Your task to perform on an android device: Show me recent news Image 0: 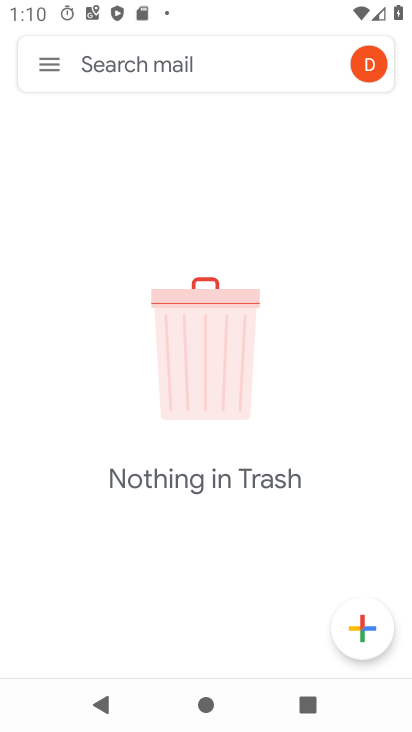
Step 0: press home button
Your task to perform on an android device: Show me recent news Image 1: 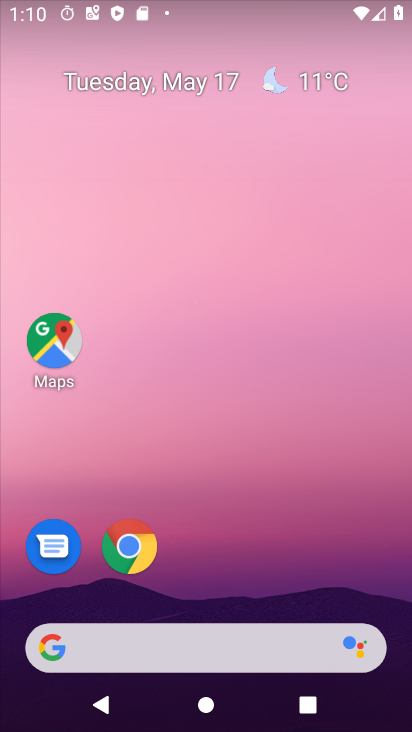
Step 1: click (55, 650)
Your task to perform on an android device: Show me recent news Image 2: 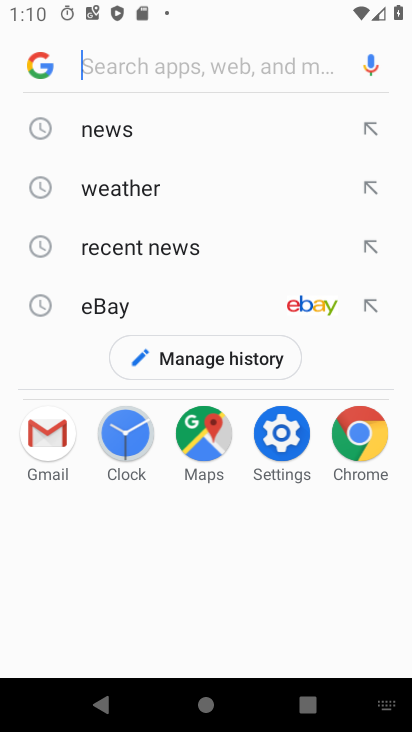
Step 2: click (111, 135)
Your task to perform on an android device: Show me recent news Image 3: 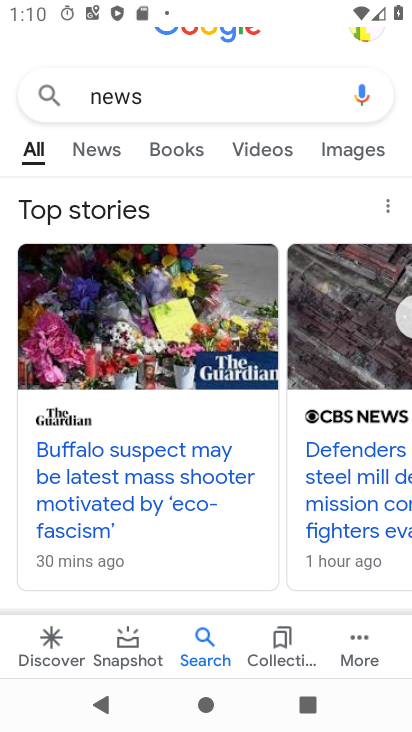
Step 3: click (98, 156)
Your task to perform on an android device: Show me recent news Image 4: 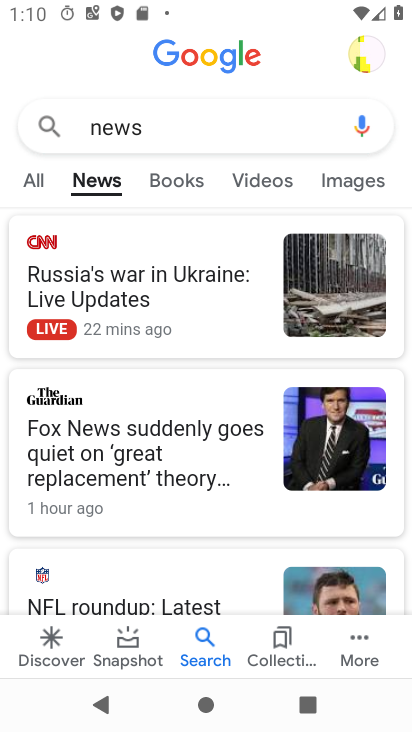
Step 4: task complete